Your task to perform on an android device: Turn off the flashlight Image 0: 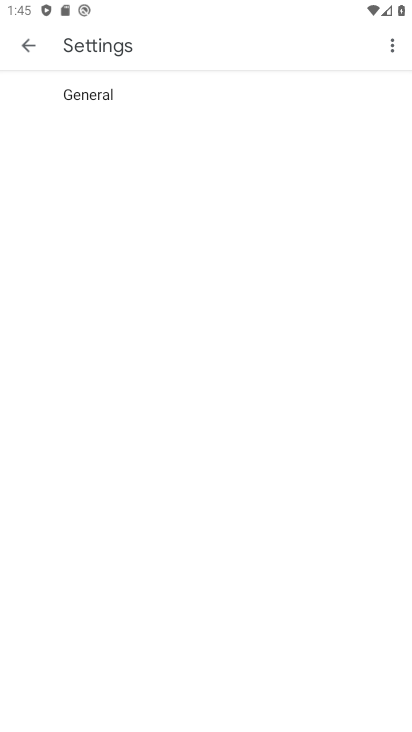
Step 0: press back button
Your task to perform on an android device: Turn off the flashlight Image 1: 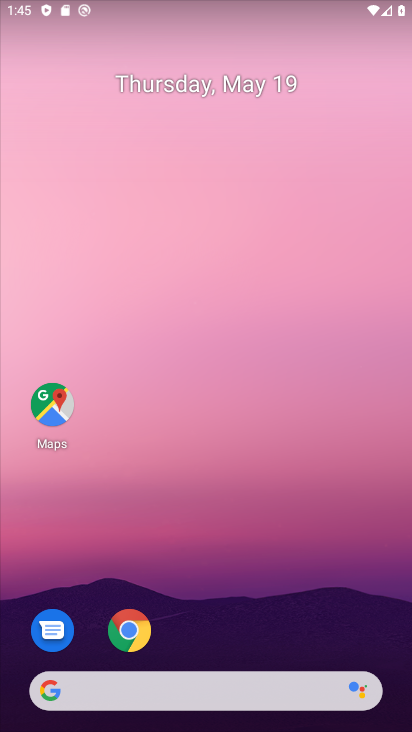
Step 1: drag from (239, 474) to (205, 15)
Your task to perform on an android device: Turn off the flashlight Image 2: 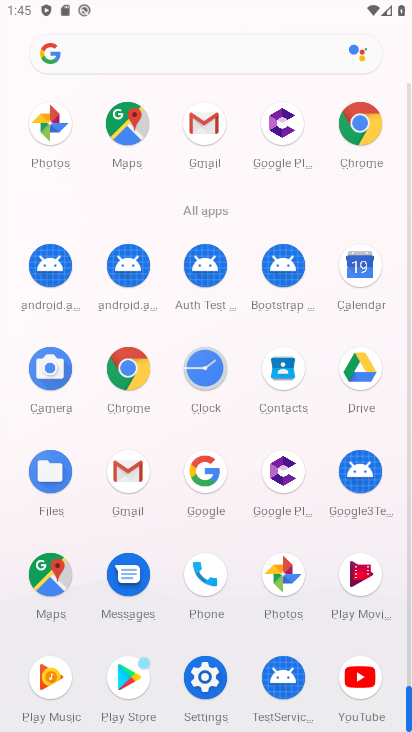
Step 2: drag from (9, 576) to (0, 343)
Your task to perform on an android device: Turn off the flashlight Image 3: 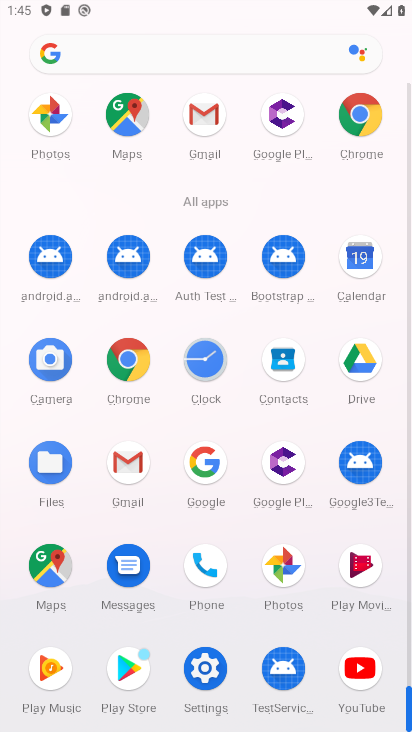
Step 3: click (207, 662)
Your task to perform on an android device: Turn off the flashlight Image 4: 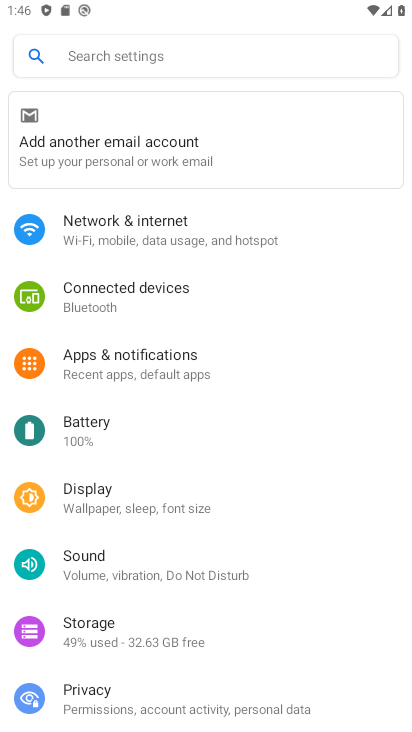
Step 4: click (177, 231)
Your task to perform on an android device: Turn off the flashlight Image 5: 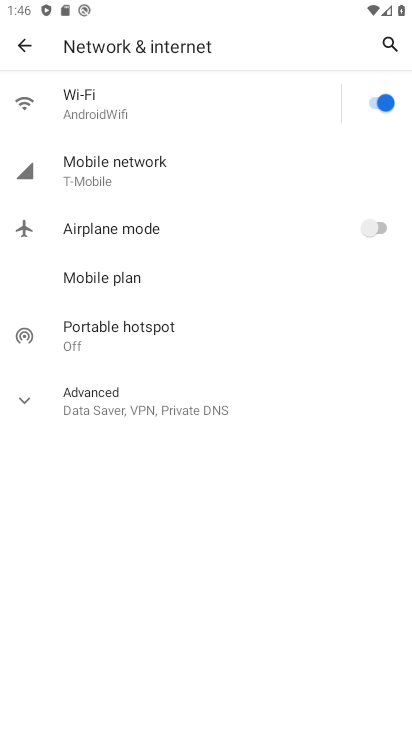
Step 5: click (32, 394)
Your task to perform on an android device: Turn off the flashlight Image 6: 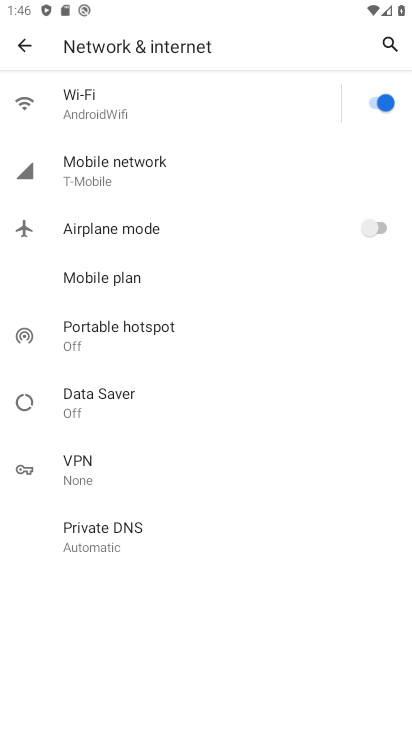
Step 6: task complete